Your task to perform on an android device: create a new album in the google photos Image 0: 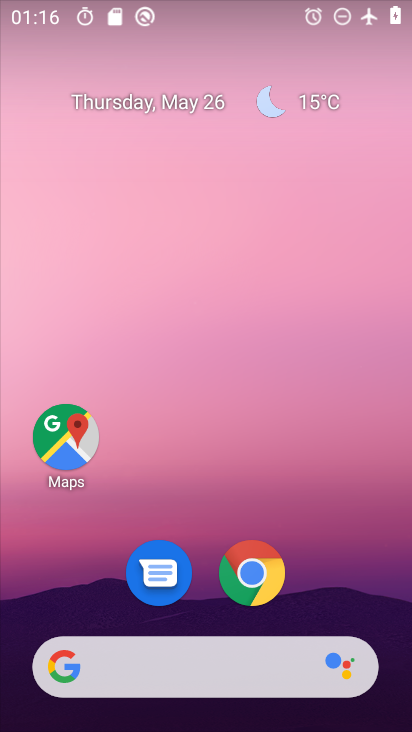
Step 0: drag from (352, 630) to (359, 1)
Your task to perform on an android device: create a new album in the google photos Image 1: 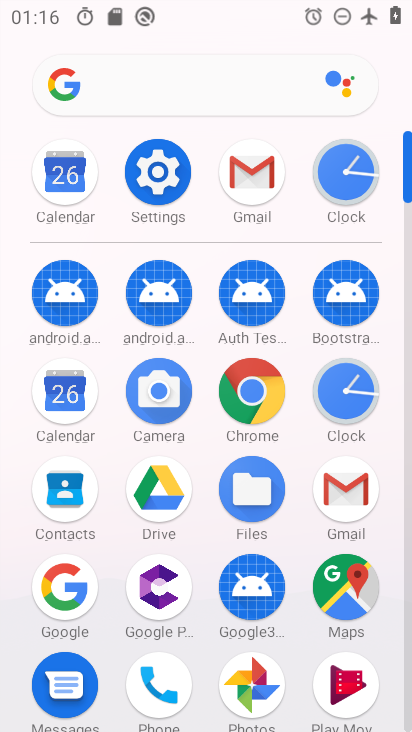
Step 1: click (253, 683)
Your task to perform on an android device: create a new album in the google photos Image 2: 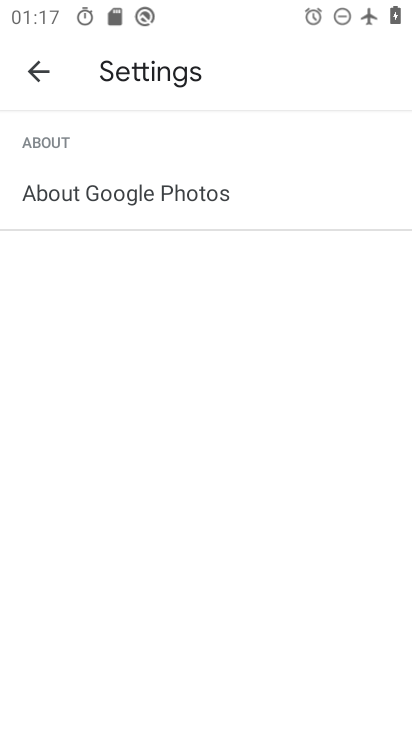
Step 2: click (33, 76)
Your task to perform on an android device: create a new album in the google photos Image 3: 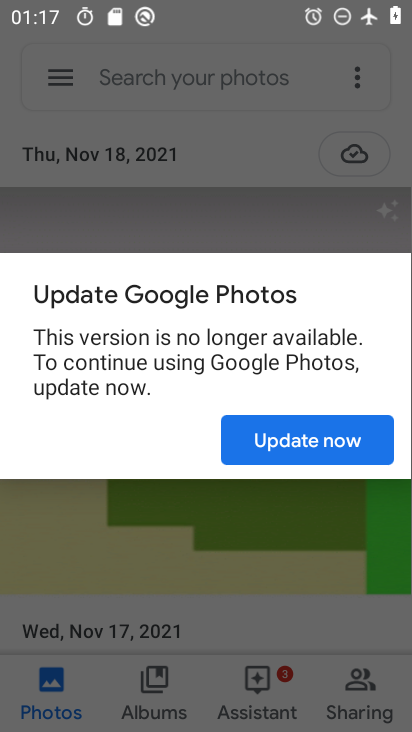
Step 3: click (301, 444)
Your task to perform on an android device: create a new album in the google photos Image 4: 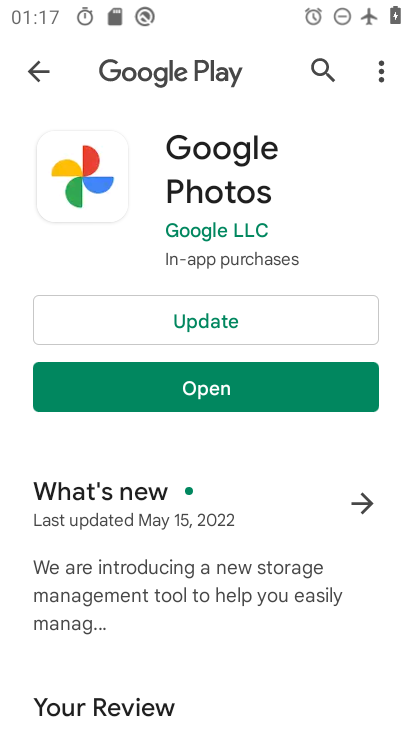
Step 4: click (210, 395)
Your task to perform on an android device: create a new album in the google photos Image 5: 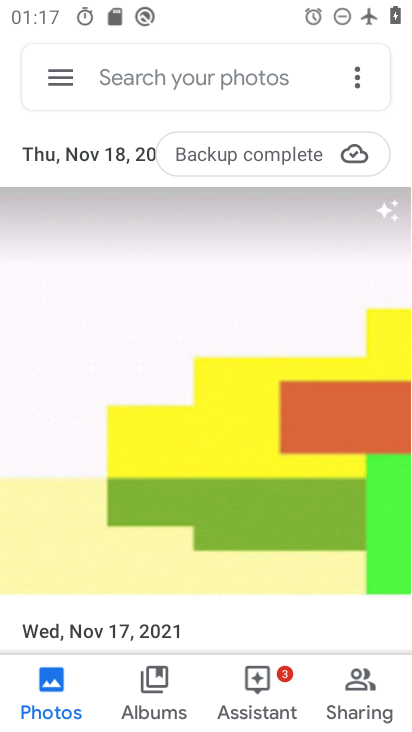
Step 5: drag from (202, 555) to (220, 227)
Your task to perform on an android device: create a new album in the google photos Image 6: 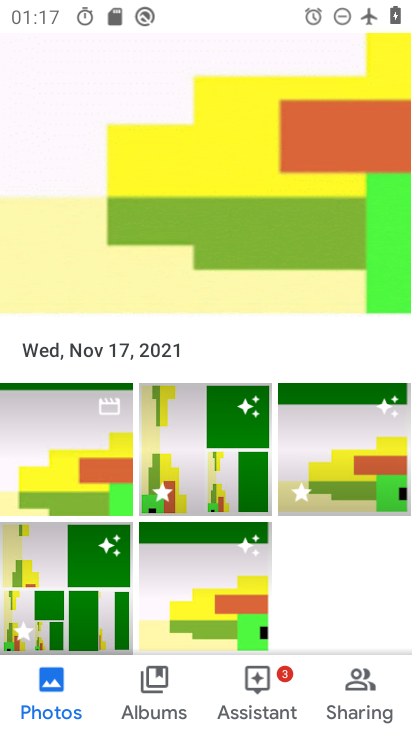
Step 6: click (202, 476)
Your task to perform on an android device: create a new album in the google photos Image 7: 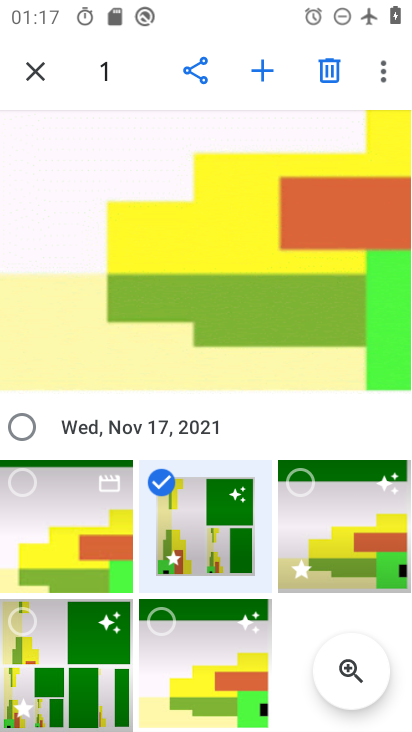
Step 7: click (252, 75)
Your task to perform on an android device: create a new album in the google photos Image 8: 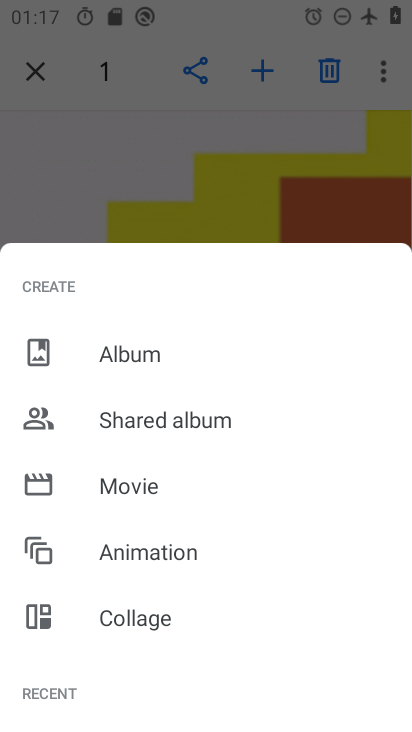
Step 8: click (106, 356)
Your task to perform on an android device: create a new album in the google photos Image 9: 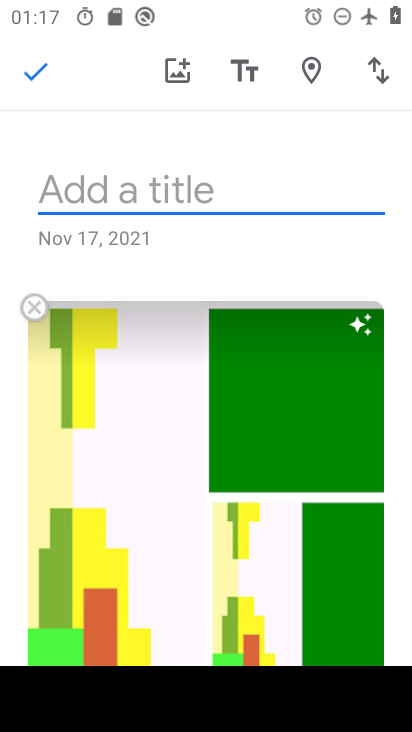
Step 9: click (113, 187)
Your task to perform on an android device: create a new album in the google photos Image 10: 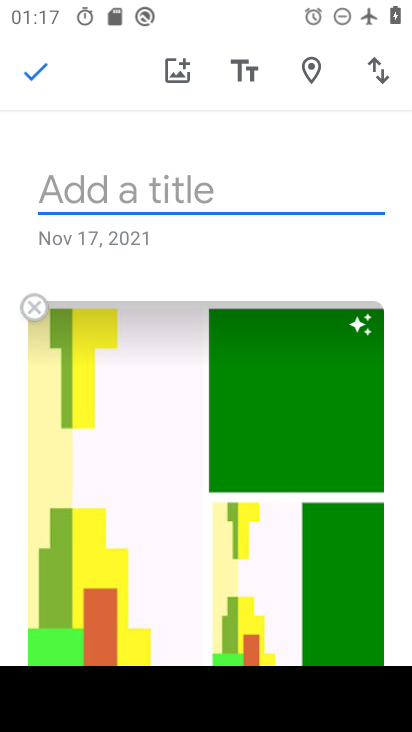
Step 10: type "new1"
Your task to perform on an android device: create a new album in the google photos Image 11: 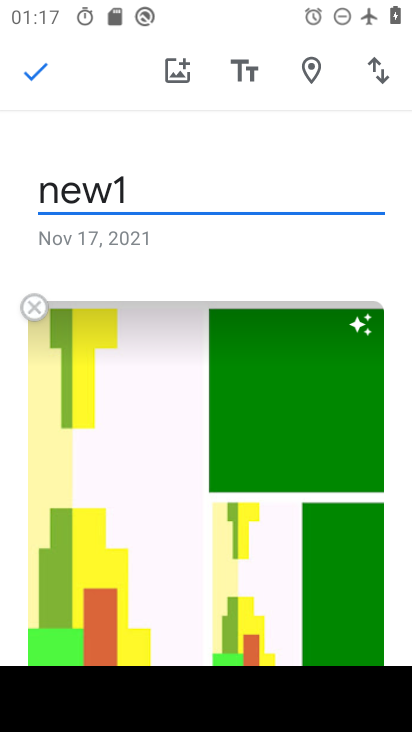
Step 11: click (27, 77)
Your task to perform on an android device: create a new album in the google photos Image 12: 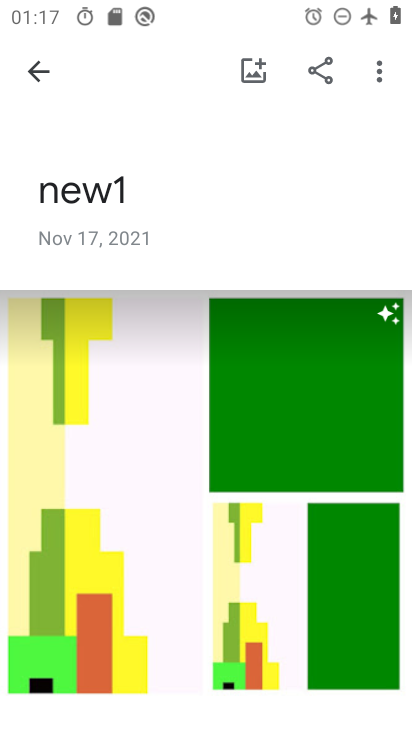
Step 12: task complete